Your task to perform on an android device: change the clock style Image 0: 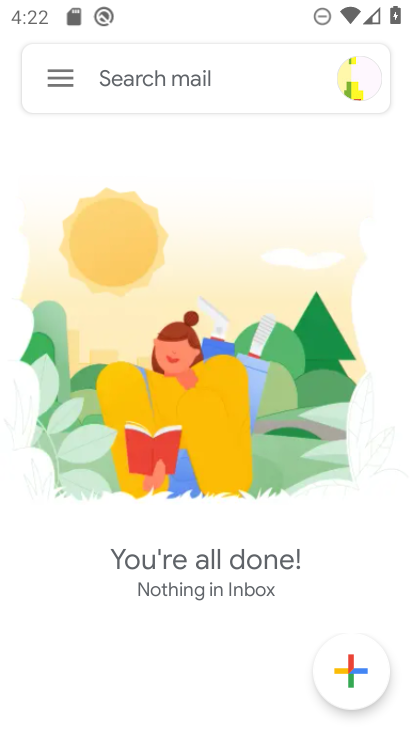
Step 0: press home button
Your task to perform on an android device: change the clock style Image 1: 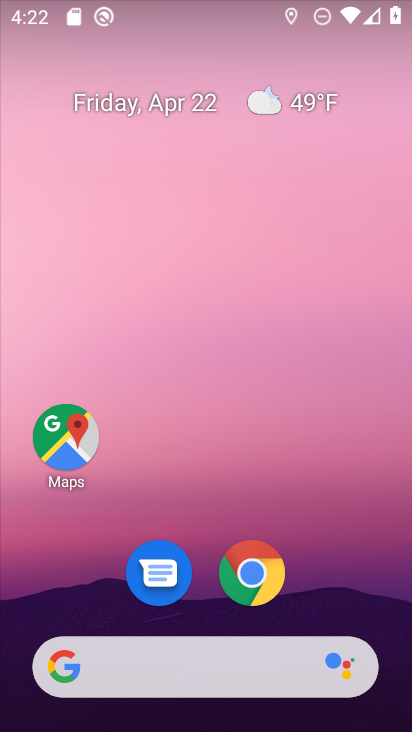
Step 1: drag from (311, 462) to (289, 146)
Your task to perform on an android device: change the clock style Image 2: 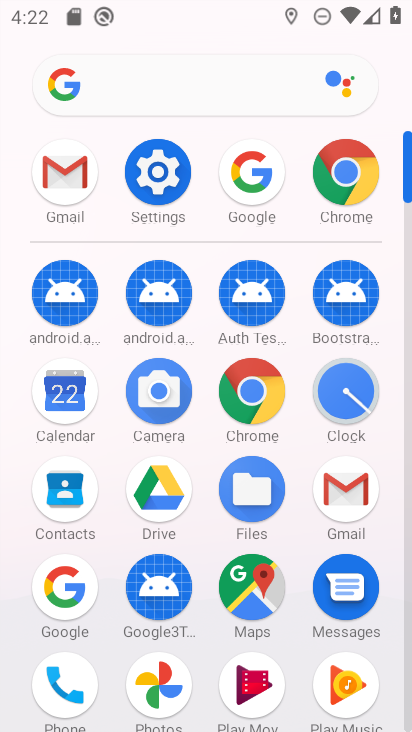
Step 2: click (340, 403)
Your task to perform on an android device: change the clock style Image 3: 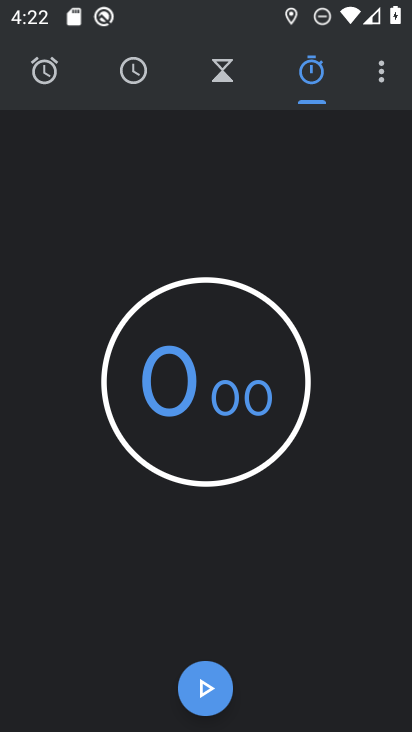
Step 3: click (390, 71)
Your task to perform on an android device: change the clock style Image 4: 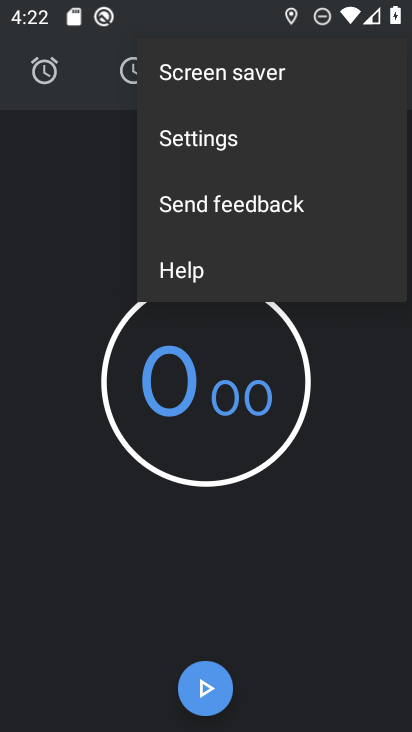
Step 4: click (261, 155)
Your task to perform on an android device: change the clock style Image 5: 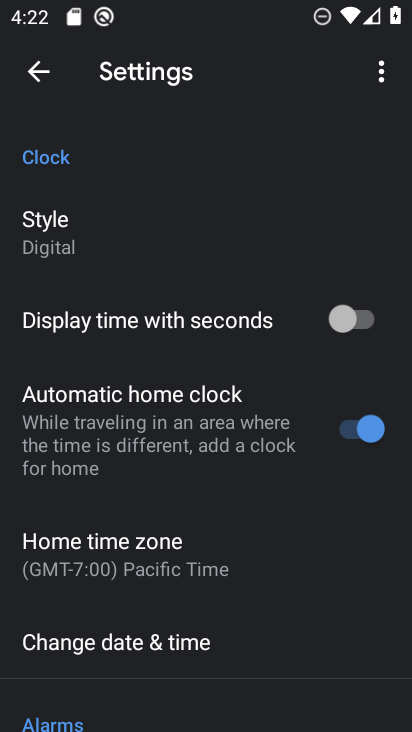
Step 5: drag from (298, 629) to (253, 188)
Your task to perform on an android device: change the clock style Image 6: 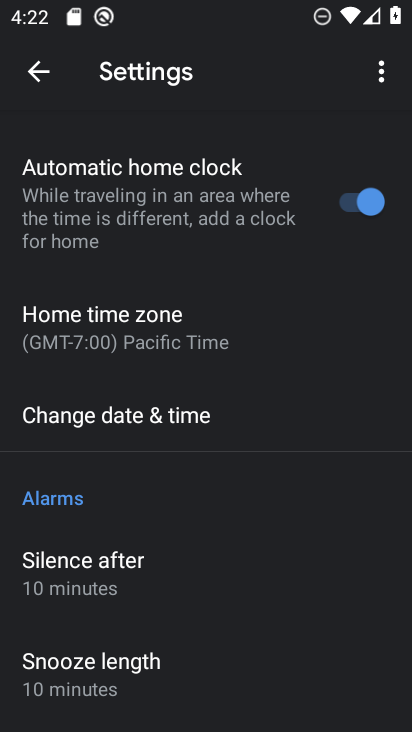
Step 6: drag from (264, 204) to (224, 644)
Your task to perform on an android device: change the clock style Image 7: 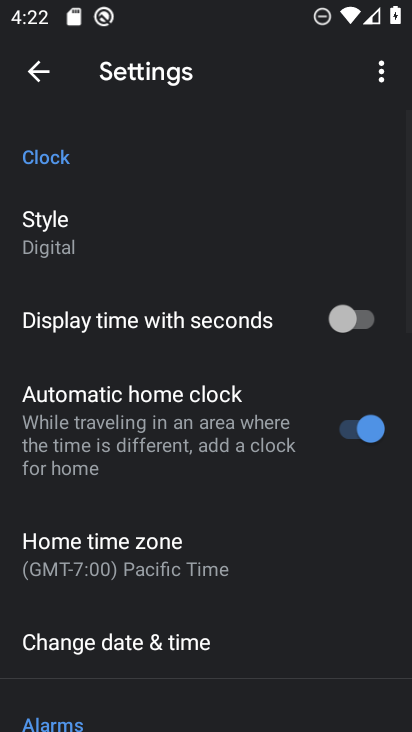
Step 7: click (97, 233)
Your task to perform on an android device: change the clock style Image 8: 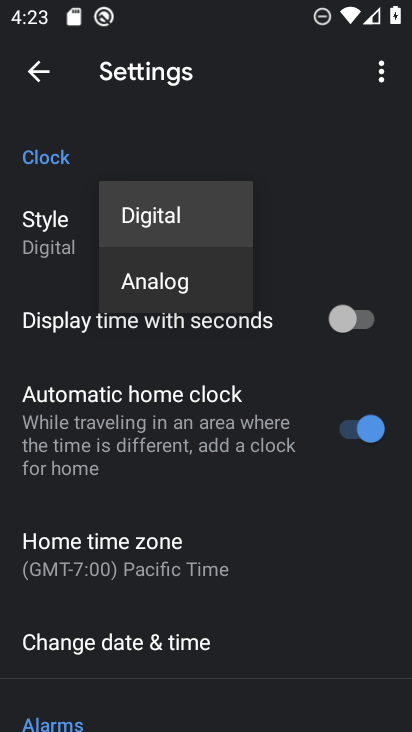
Step 8: click (173, 283)
Your task to perform on an android device: change the clock style Image 9: 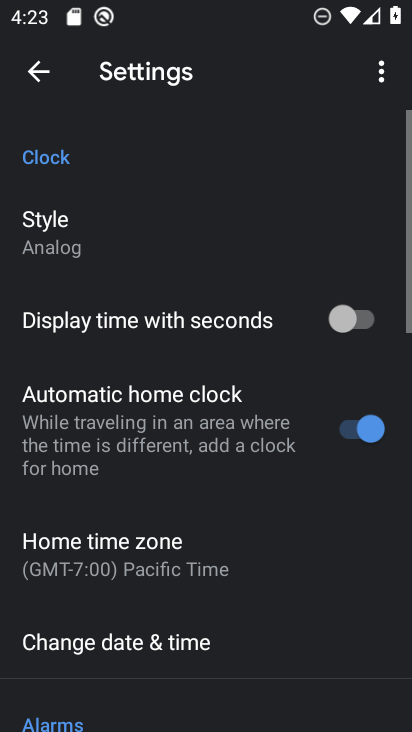
Step 9: task complete